Your task to perform on an android device: turn on location history Image 0: 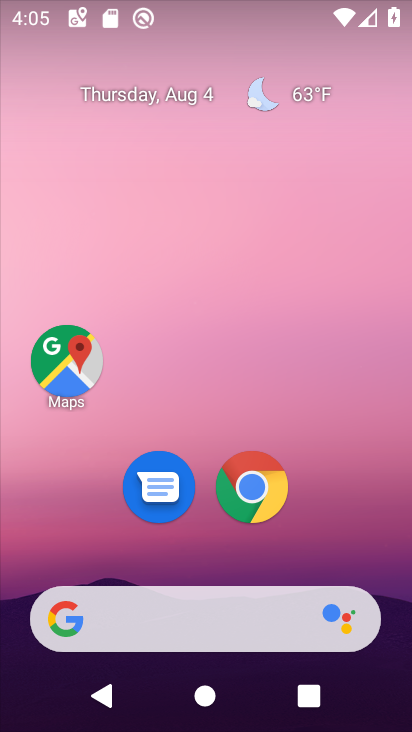
Step 0: drag from (174, 404) to (250, 3)
Your task to perform on an android device: turn on location history Image 1: 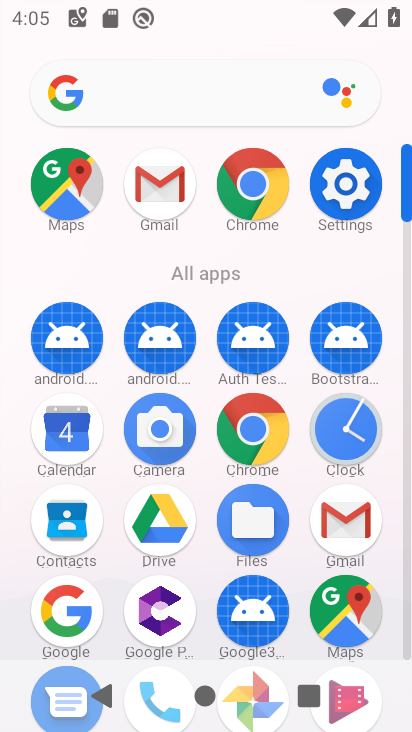
Step 1: click (333, 179)
Your task to perform on an android device: turn on location history Image 2: 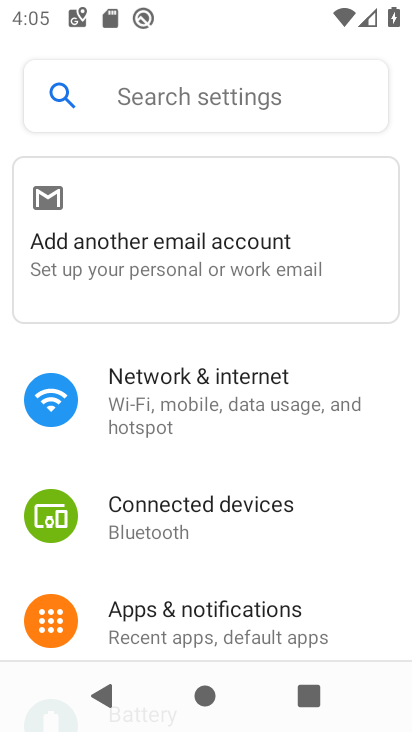
Step 2: drag from (181, 579) to (279, 7)
Your task to perform on an android device: turn on location history Image 3: 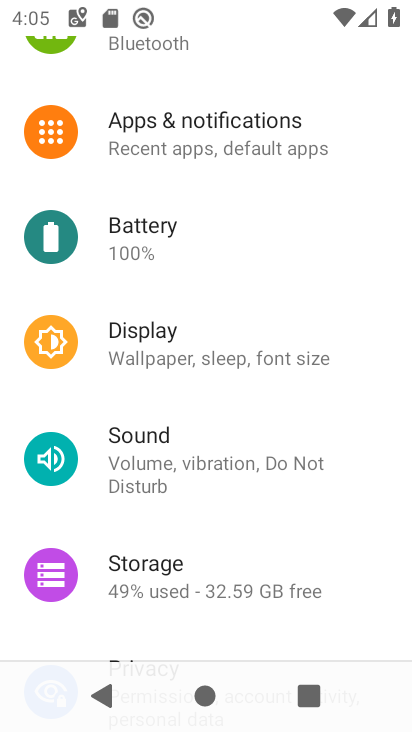
Step 3: drag from (155, 591) to (315, 3)
Your task to perform on an android device: turn on location history Image 4: 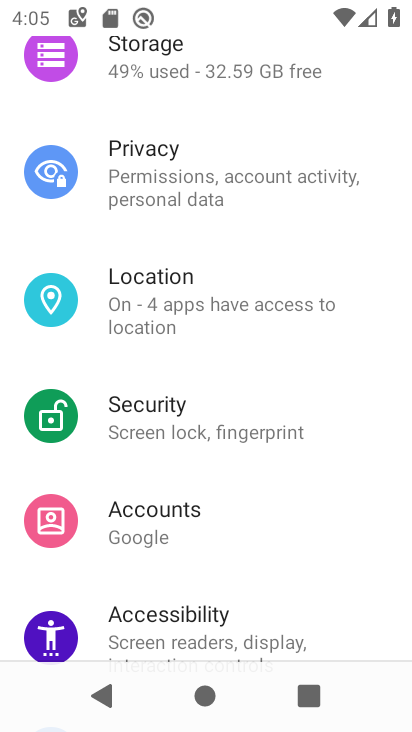
Step 4: click (156, 295)
Your task to perform on an android device: turn on location history Image 5: 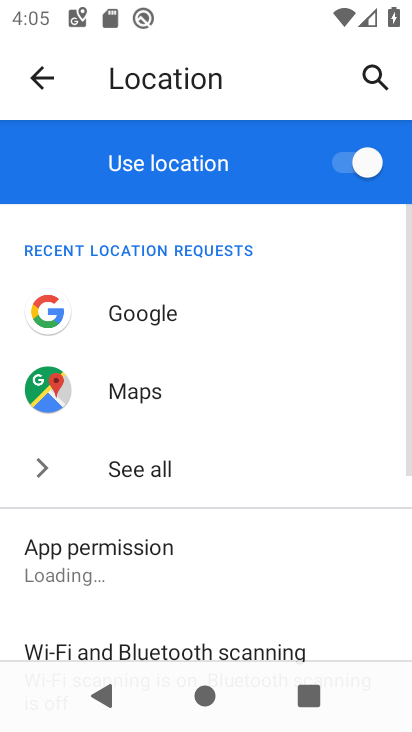
Step 5: drag from (135, 561) to (256, 16)
Your task to perform on an android device: turn on location history Image 6: 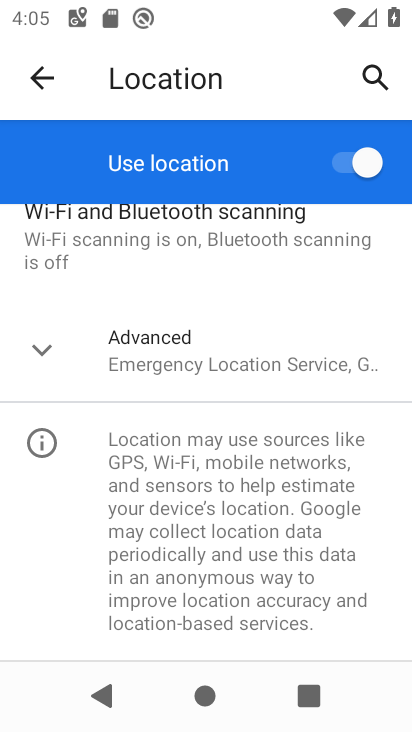
Step 6: click (164, 360)
Your task to perform on an android device: turn on location history Image 7: 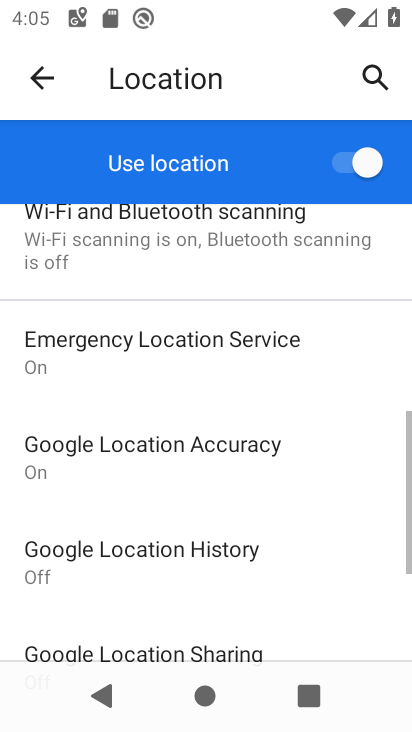
Step 7: click (134, 561)
Your task to perform on an android device: turn on location history Image 8: 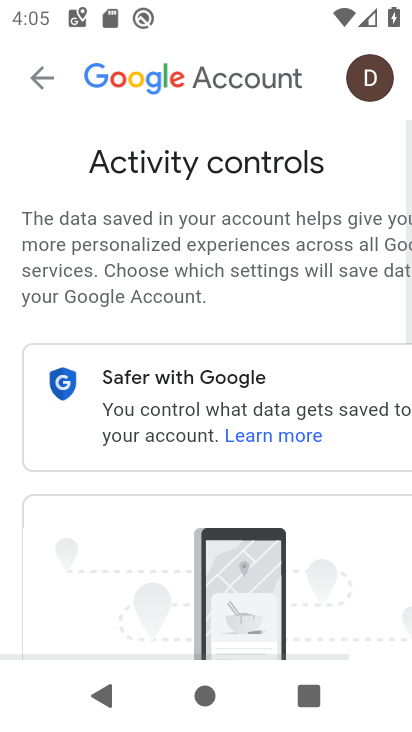
Step 8: drag from (143, 518) to (256, 11)
Your task to perform on an android device: turn on location history Image 9: 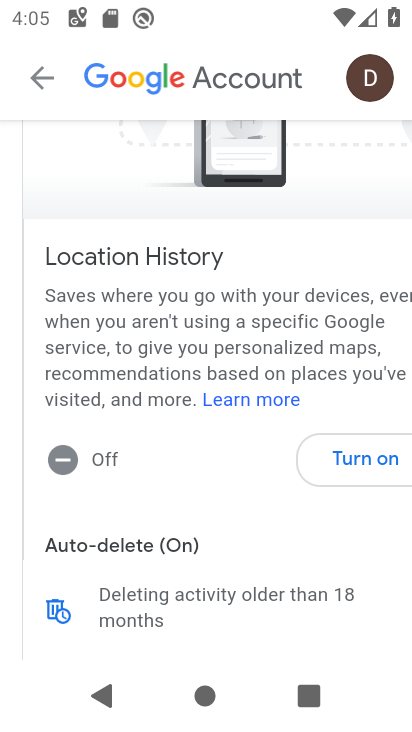
Step 9: click (350, 458)
Your task to perform on an android device: turn on location history Image 10: 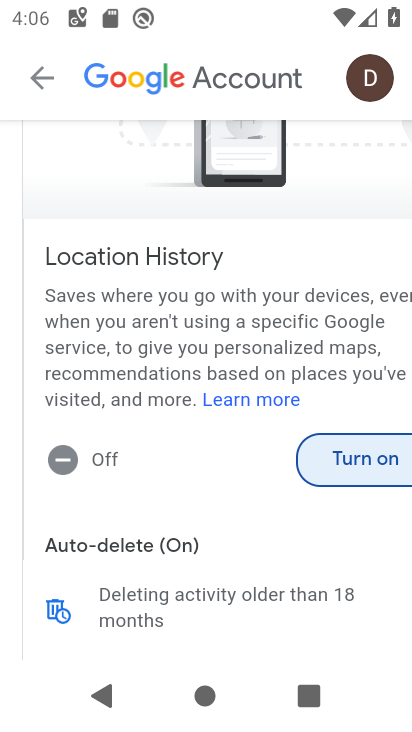
Step 10: click (366, 464)
Your task to perform on an android device: turn on location history Image 11: 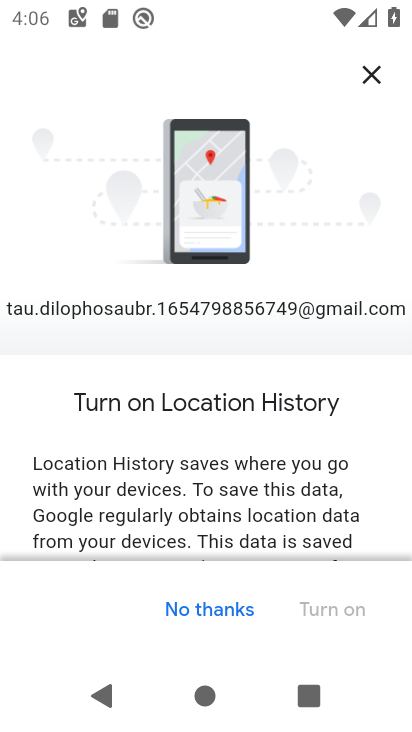
Step 11: drag from (258, 496) to (338, 9)
Your task to perform on an android device: turn on location history Image 12: 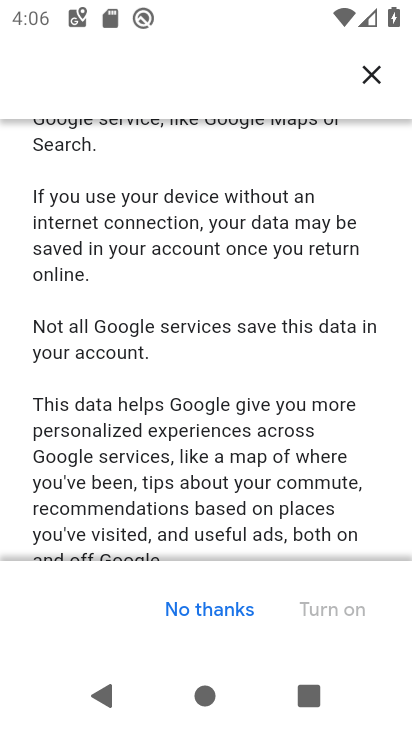
Step 12: drag from (270, 525) to (326, 0)
Your task to perform on an android device: turn on location history Image 13: 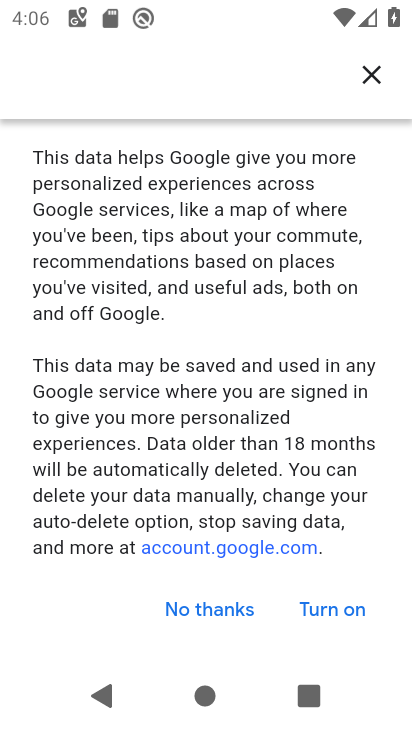
Step 13: click (327, 609)
Your task to perform on an android device: turn on location history Image 14: 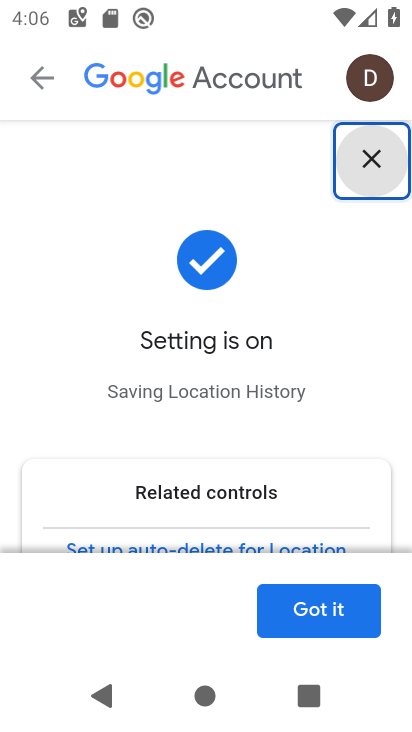
Step 14: task complete